Your task to perform on an android device: Go to notification settings Image 0: 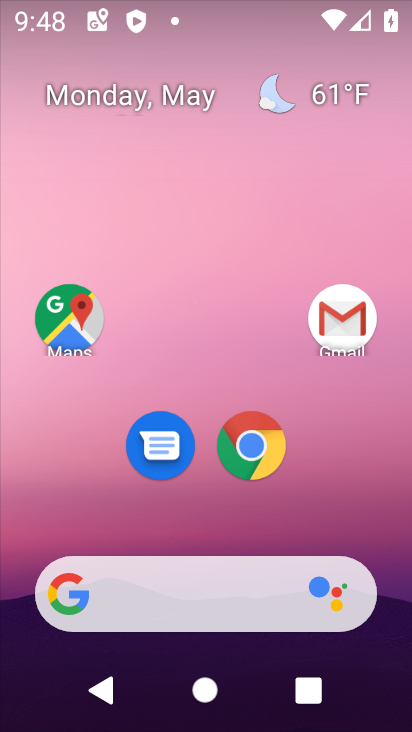
Step 0: drag from (342, 509) to (342, 88)
Your task to perform on an android device: Go to notification settings Image 1: 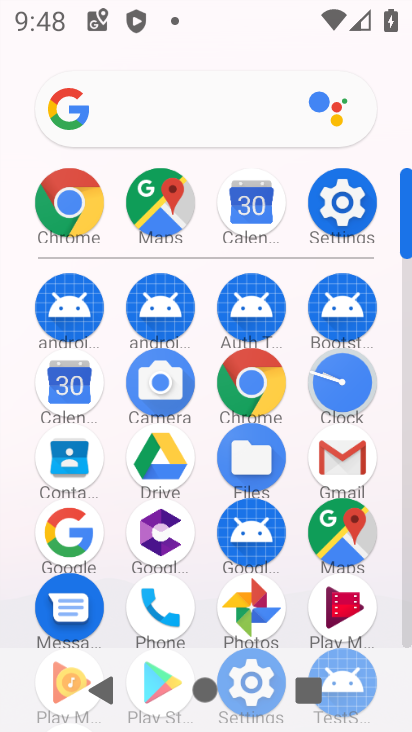
Step 1: click (347, 189)
Your task to perform on an android device: Go to notification settings Image 2: 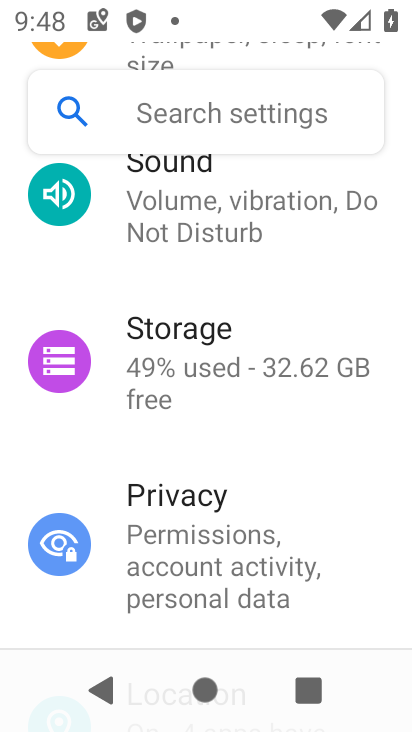
Step 2: drag from (368, 251) to (368, 388)
Your task to perform on an android device: Go to notification settings Image 3: 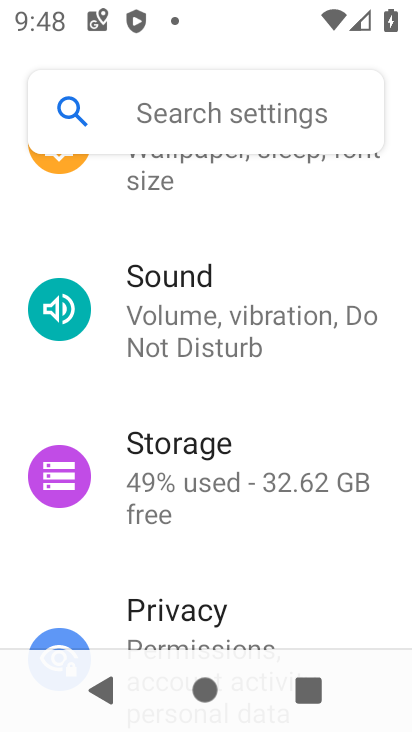
Step 3: drag from (350, 207) to (345, 371)
Your task to perform on an android device: Go to notification settings Image 4: 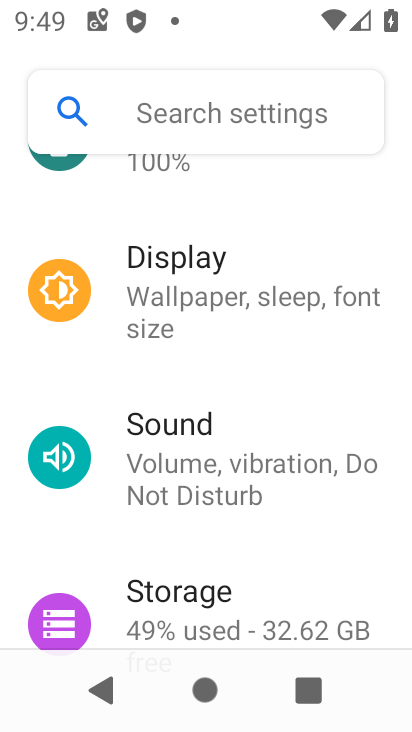
Step 4: drag from (334, 198) to (335, 326)
Your task to perform on an android device: Go to notification settings Image 5: 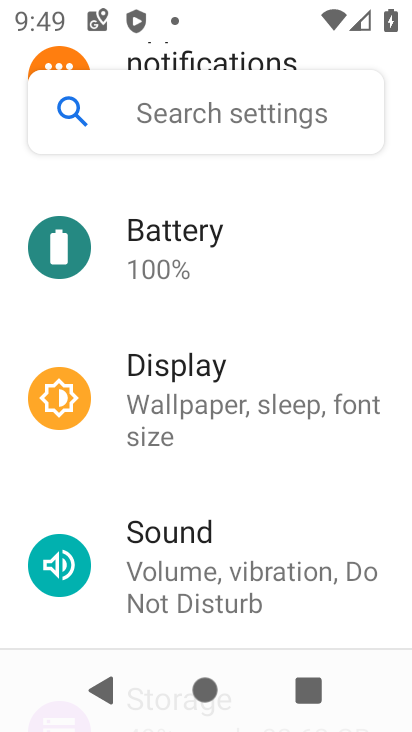
Step 5: drag from (326, 256) to (324, 376)
Your task to perform on an android device: Go to notification settings Image 6: 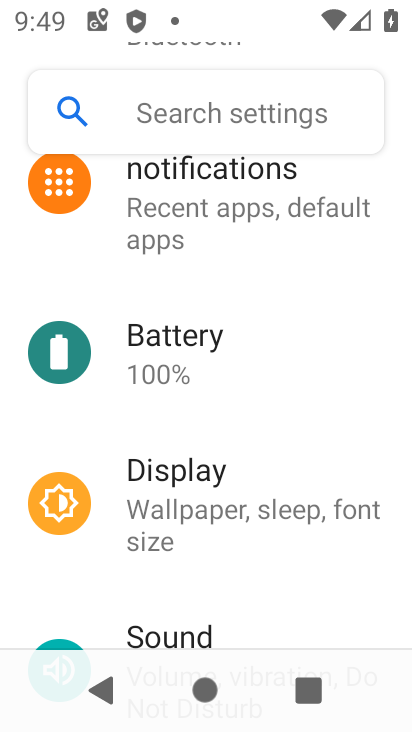
Step 6: drag from (302, 248) to (306, 336)
Your task to perform on an android device: Go to notification settings Image 7: 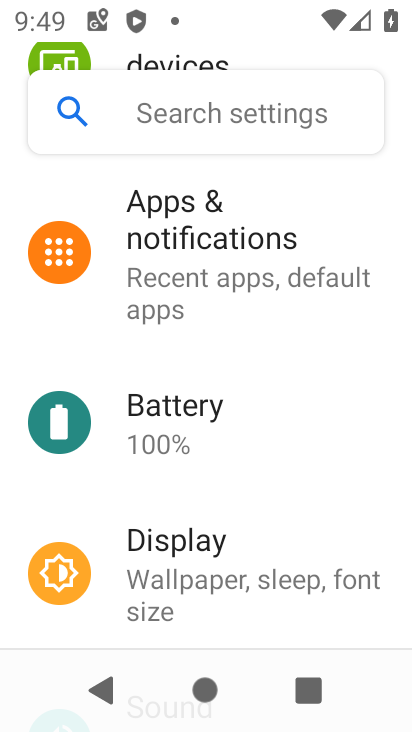
Step 7: drag from (316, 204) to (318, 370)
Your task to perform on an android device: Go to notification settings Image 8: 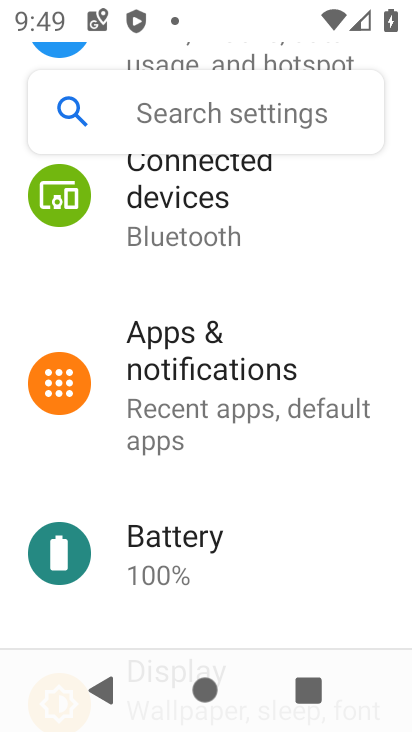
Step 8: drag from (313, 193) to (339, 363)
Your task to perform on an android device: Go to notification settings Image 9: 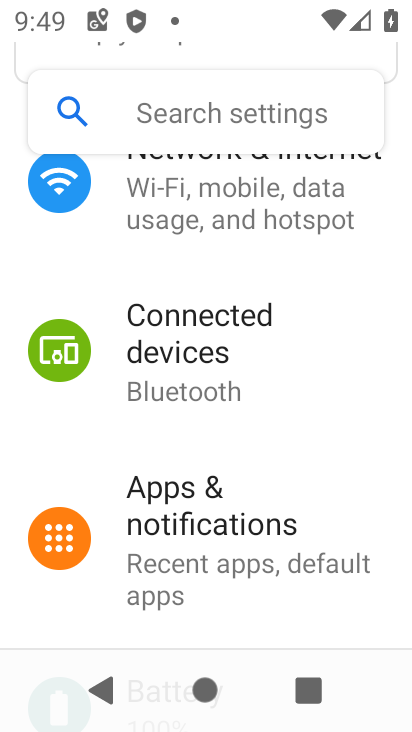
Step 9: drag from (314, 303) to (315, 428)
Your task to perform on an android device: Go to notification settings Image 10: 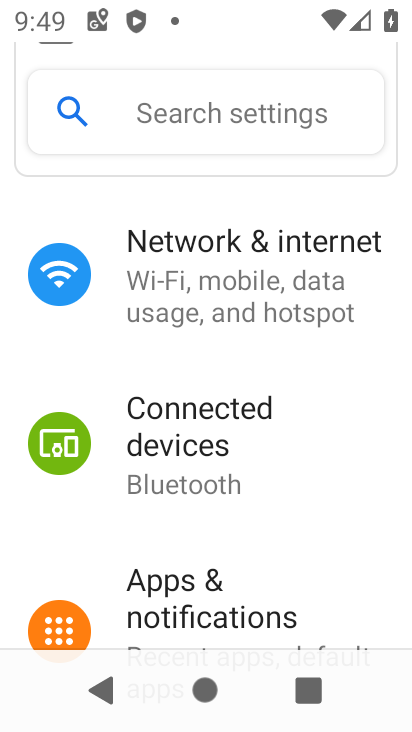
Step 10: drag from (312, 457) to (299, 265)
Your task to perform on an android device: Go to notification settings Image 11: 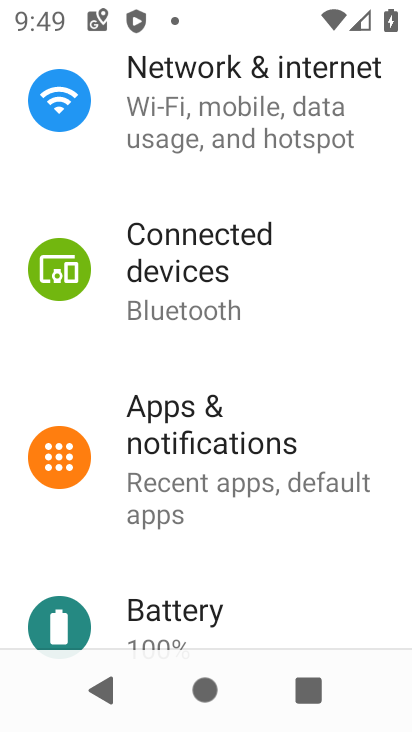
Step 11: click (235, 447)
Your task to perform on an android device: Go to notification settings Image 12: 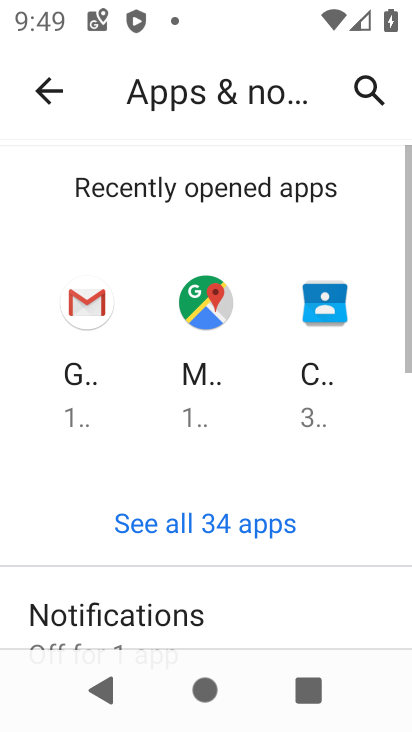
Step 12: drag from (246, 450) to (249, 264)
Your task to perform on an android device: Go to notification settings Image 13: 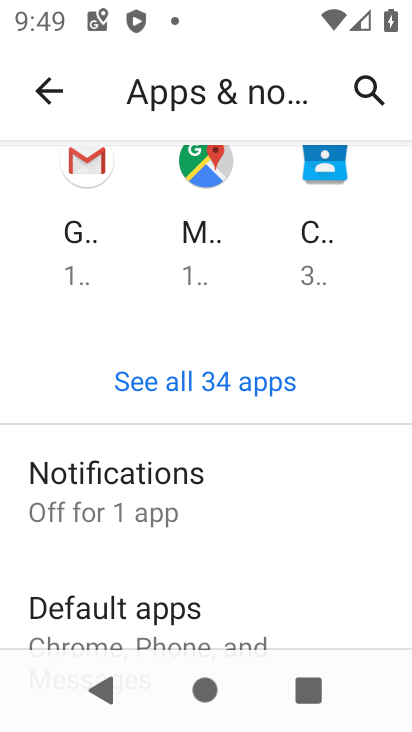
Step 13: drag from (285, 528) to (300, 276)
Your task to perform on an android device: Go to notification settings Image 14: 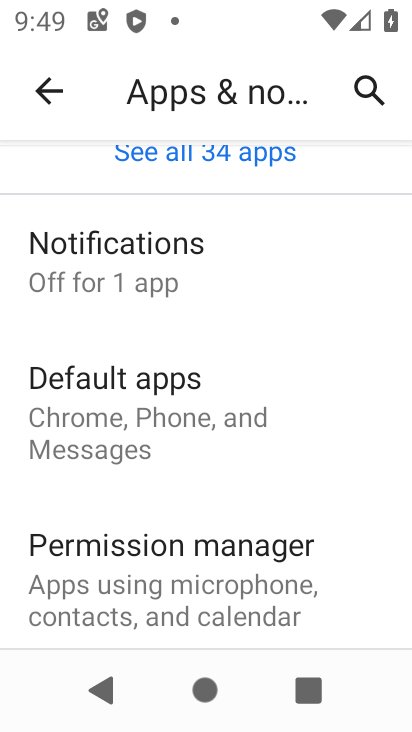
Step 14: click (168, 257)
Your task to perform on an android device: Go to notification settings Image 15: 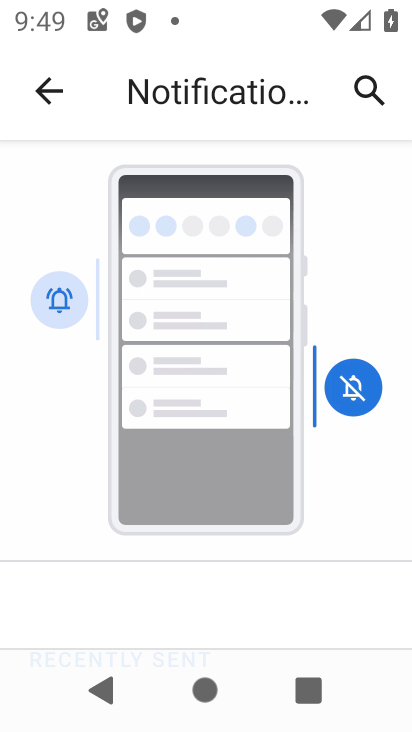
Step 15: task complete